Your task to perform on an android device: Open Wikipedia Image 0: 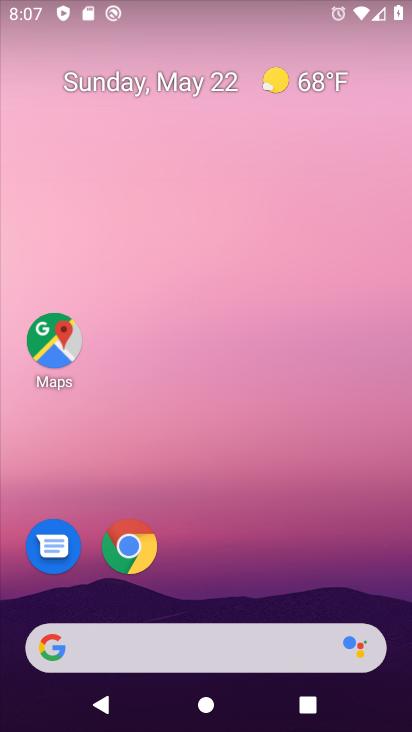
Step 0: drag from (203, 677) to (118, 71)
Your task to perform on an android device: Open Wikipedia Image 1: 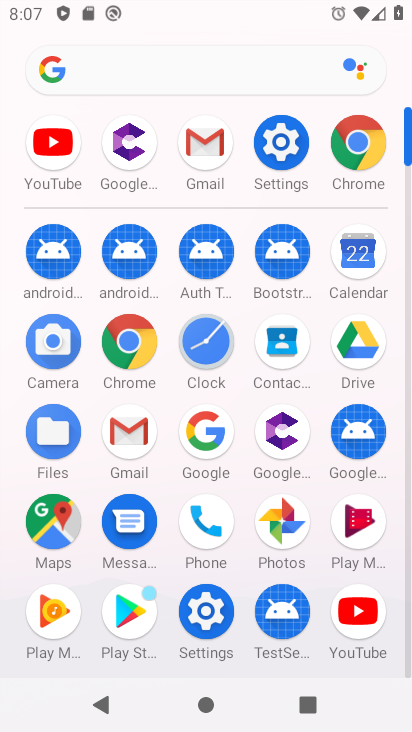
Step 1: drag from (280, 609) to (238, 224)
Your task to perform on an android device: Open Wikipedia Image 2: 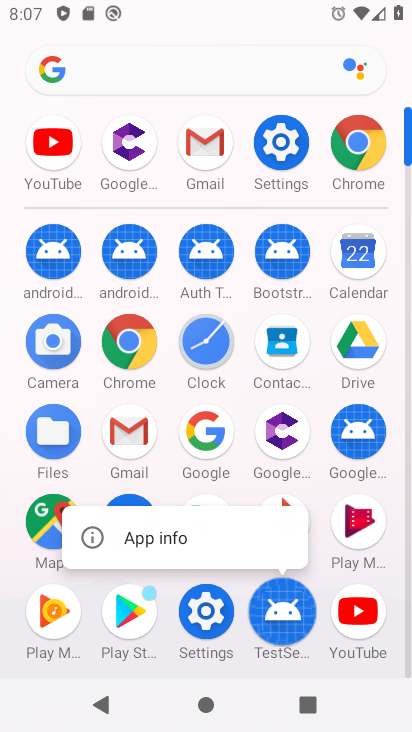
Step 2: drag from (241, 473) to (209, 117)
Your task to perform on an android device: Open Wikipedia Image 3: 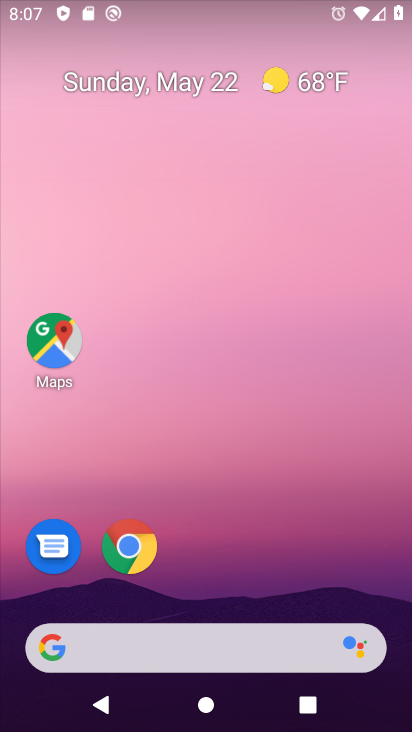
Step 3: drag from (182, 252) to (181, 197)
Your task to perform on an android device: Open Wikipedia Image 4: 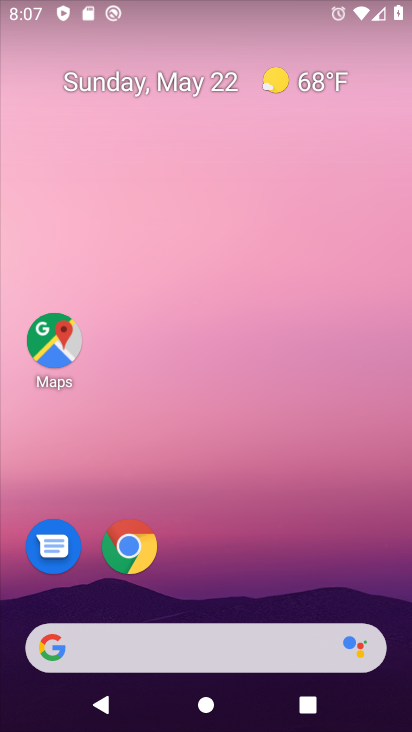
Step 4: drag from (262, 317) to (262, 208)
Your task to perform on an android device: Open Wikipedia Image 5: 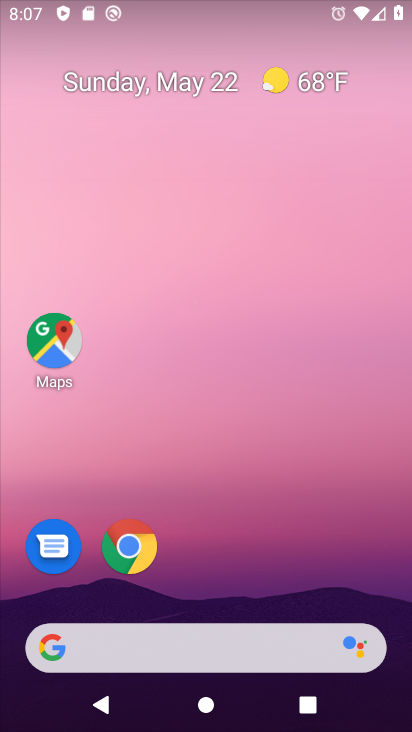
Step 5: click (233, 60)
Your task to perform on an android device: Open Wikipedia Image 6: 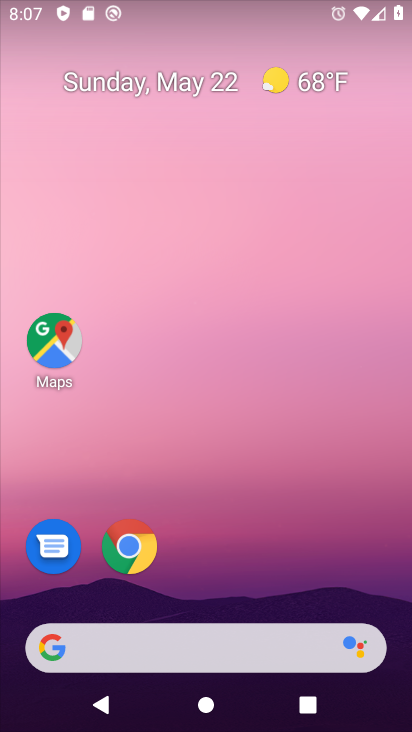
Step 6: drag from (220, 462) to (185, 157)
Your task to perform on an android device: Open Wikipedia Image 7: 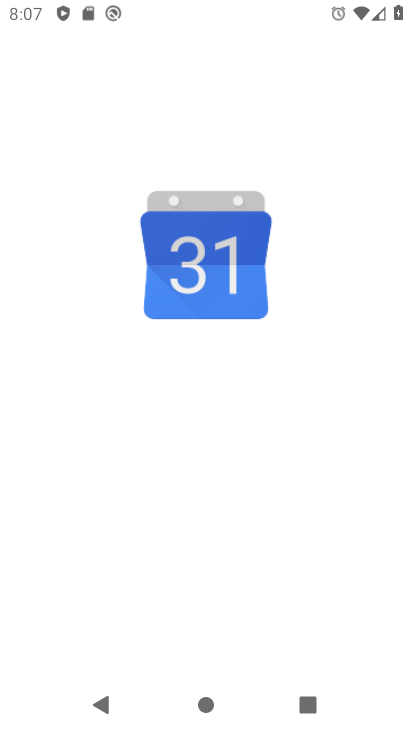
Step 7: drag from (203, 395) to (191, 184)
Your task to perform on an android device: Open Wikipedia Image 8: 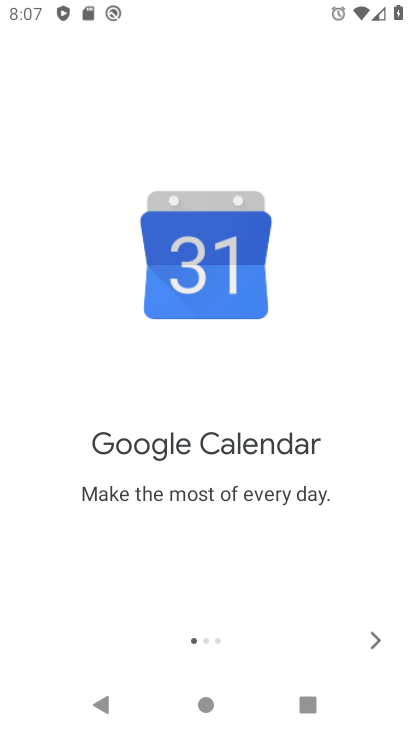
Step 8: click (378, 626)
Your task to perform on an android device: Open Wikipedia Image 9: 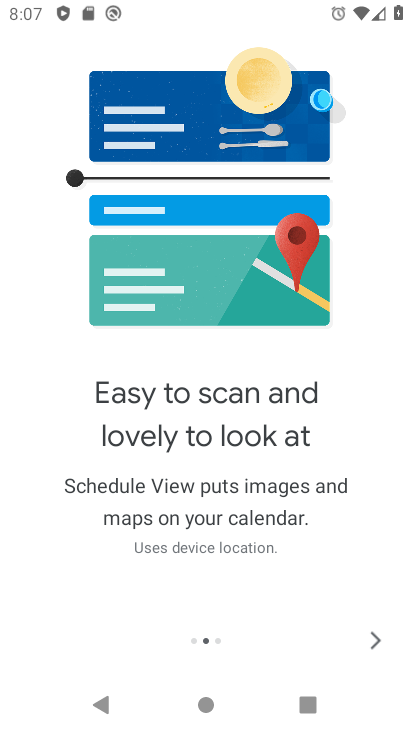
Step 9: click (381, 634)
Your task to perform on an android device: Open Wikipedia Image 10: 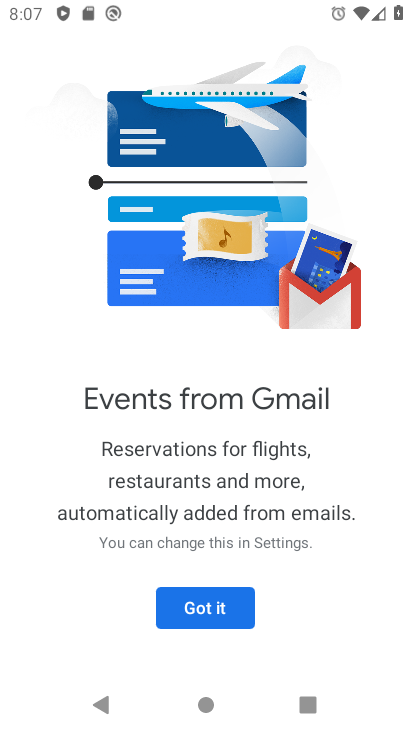
Step 10: click (367, 634)
Your task to perform on an android device: Open Wikipedia Image 11: 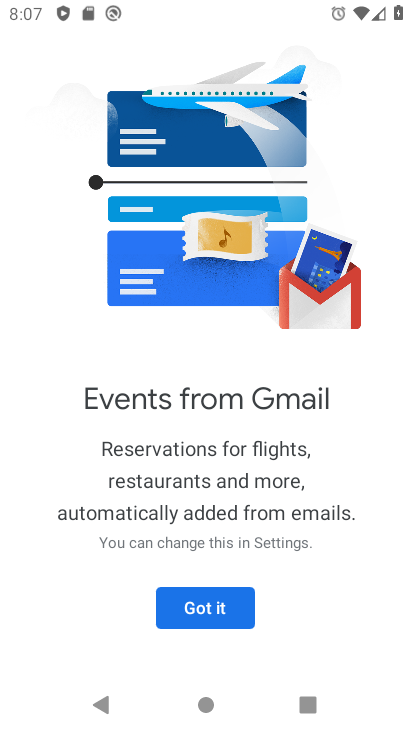
Step 11: click (366, 635)
Your task to perform on an android device: Open Wikipedia Image 12: 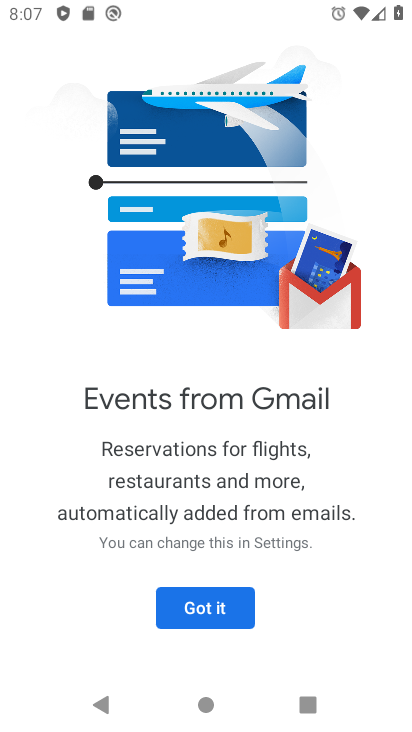
Step 12: click (366, 635)
Your task to perform on an android device: Open Wikipedia Image 13: 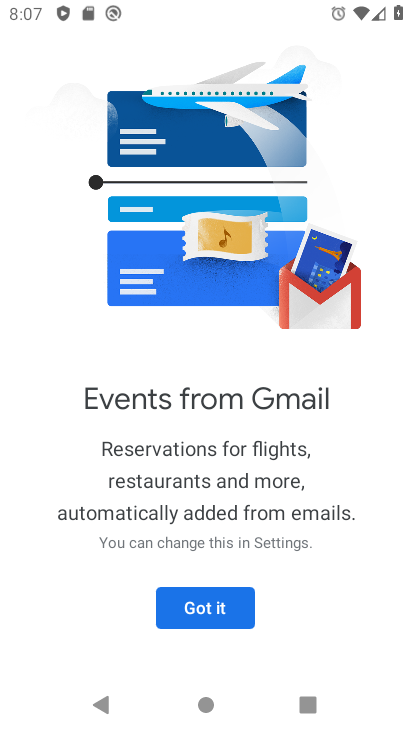
Step 13: click (223, 606)
Your task to perform on an android device: Open Wikipedia Image 14: 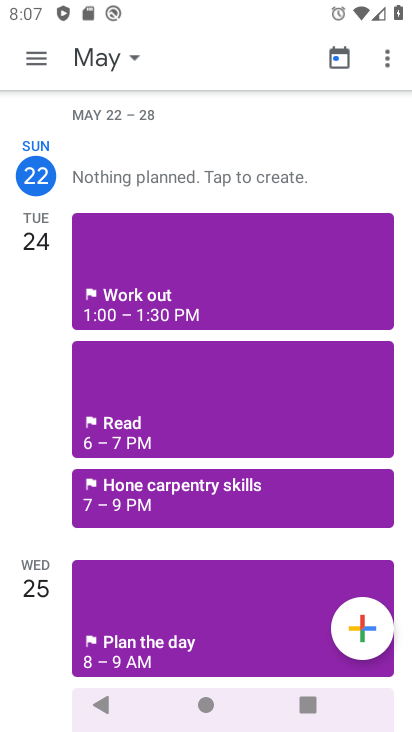
Step 14: press back button
Your task to perform on an android device: Open Wikipedia Image 15: 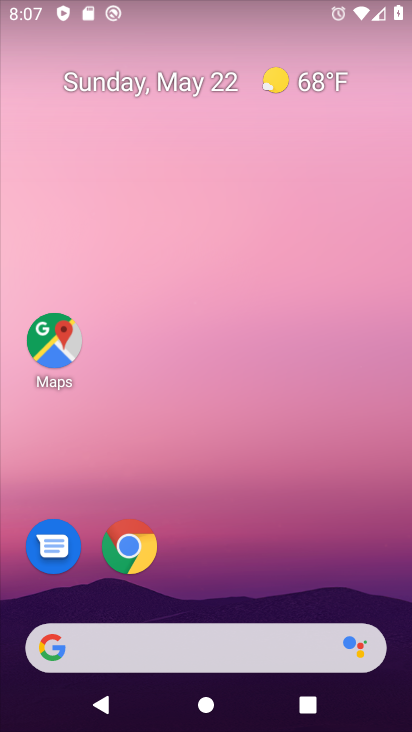
Step 15: drag from (286, 683) to (116, 10)
Your task to perform on an android device: Open Wikipedia Image 16: 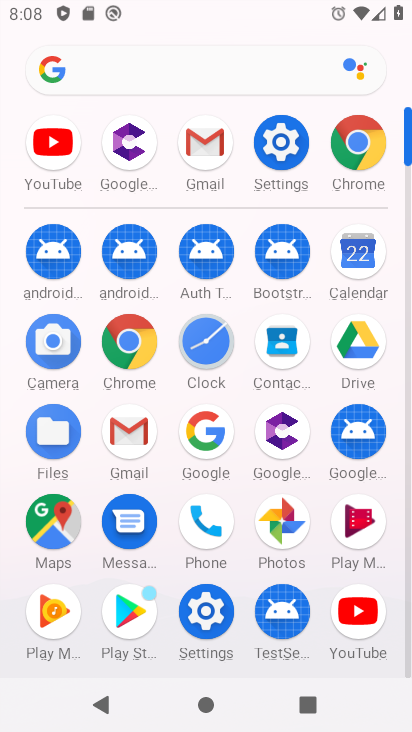
Step 16: click (363, 146)
Your task to perform on an android device: Open Wikipedia Image 17: 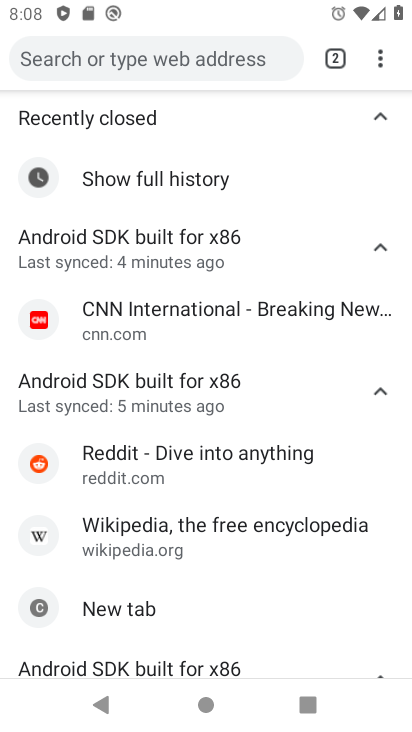
Step 17: drag from (380, 55) to (168, 119)
Your task to perform on an android device: Open Wikipedia Image 18: 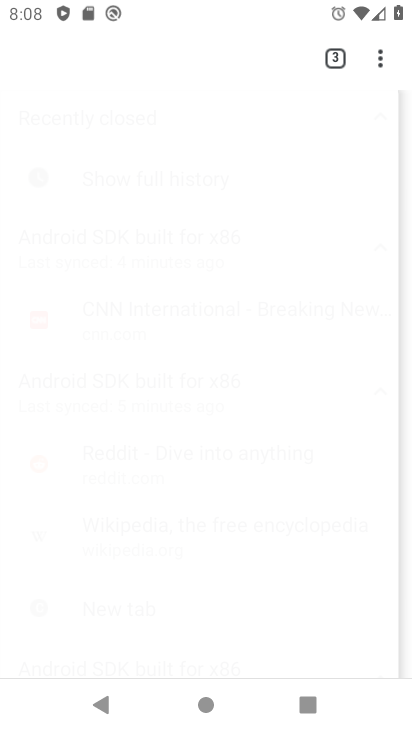
Step 18: click (168, 119)
Your task to perform on an android device: Open Wikipedia Image 19: 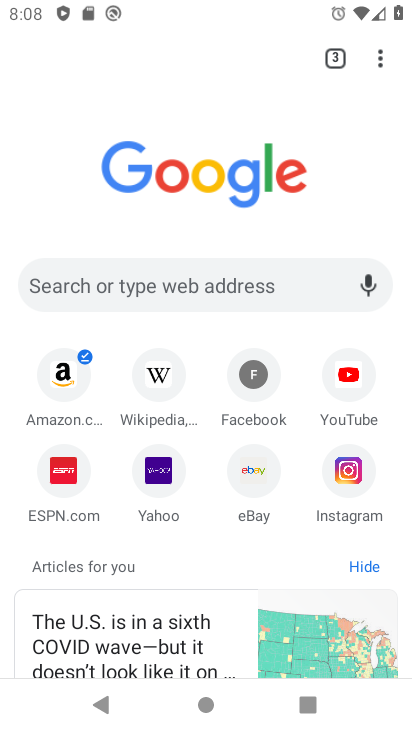
Step 19: click (168, 119)
Your task to perform on an android device: Open Wikipedia Image 20: 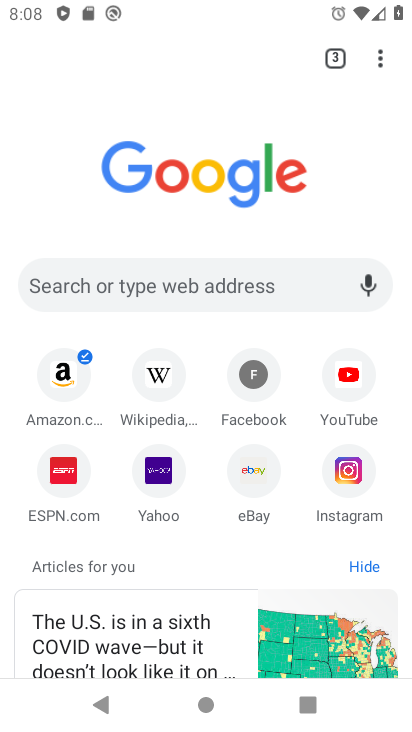
Step 20: click (157, 106)
Your task to perform on an android device: Open Wikipedia Image 21: 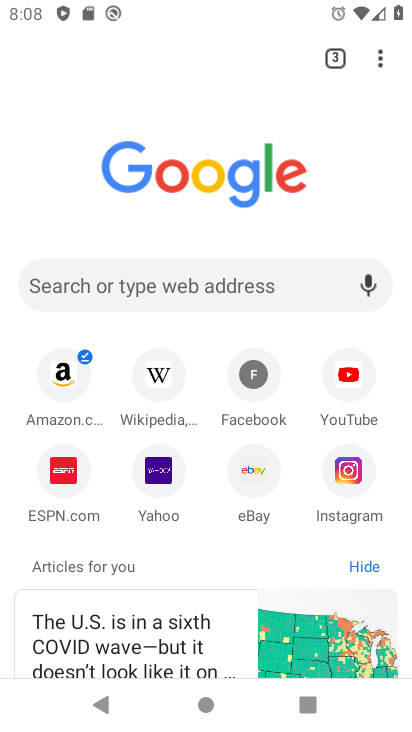
Step 21: click (161, 367)
Your task to perform on an android device: Open Wikipedia Image 22: 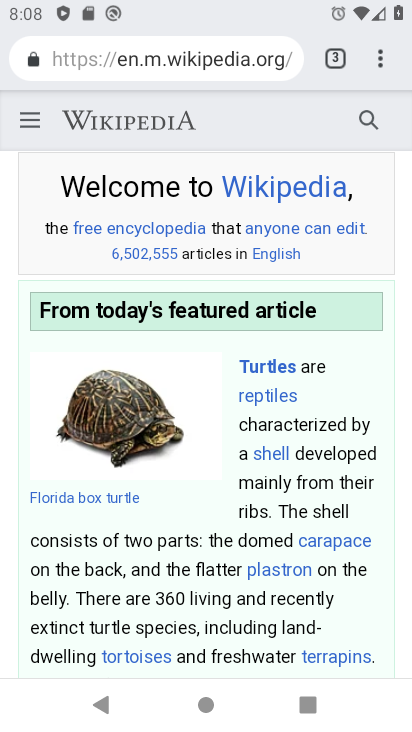
Step 22: click (148, 371)
Your task to perform on an android device: Open Wikipedia Image 23: 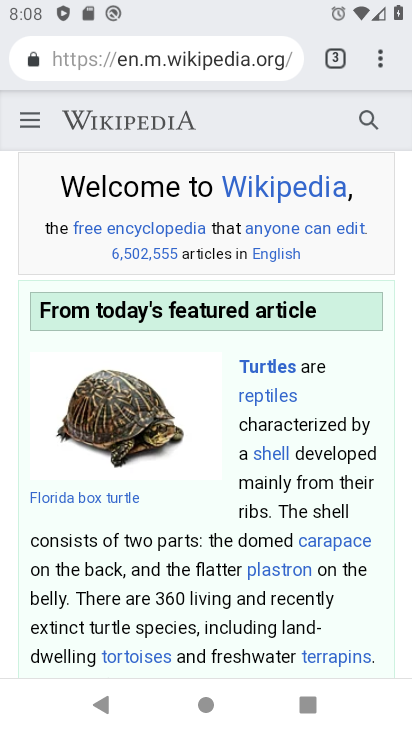
Step 23: click (148, 367)
Your task to perform on an android device: Open Wikipedia Image 24: 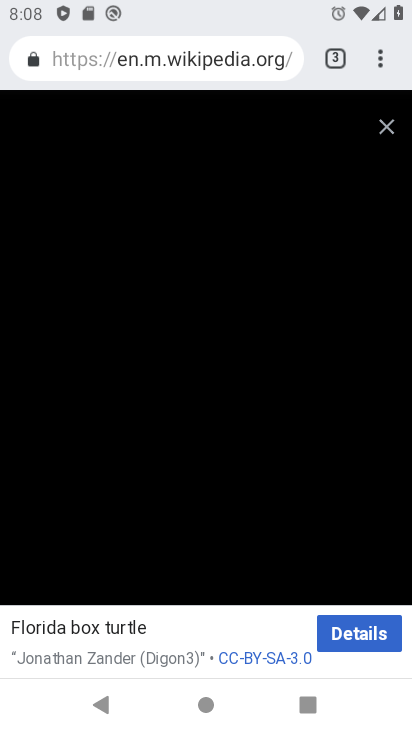
Step 24: task complete